Your task to perform on an android device: Open my contact list Image 0: 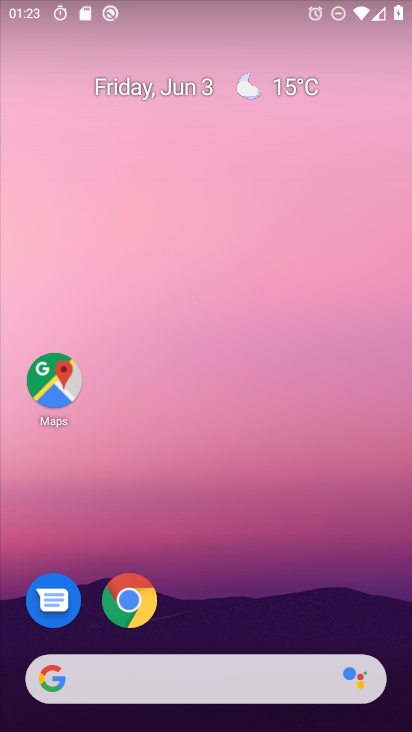
Step 0: drag from (242, 595) to (381, 63)
Your task to perform on an android device: Open my contact list Image 1: 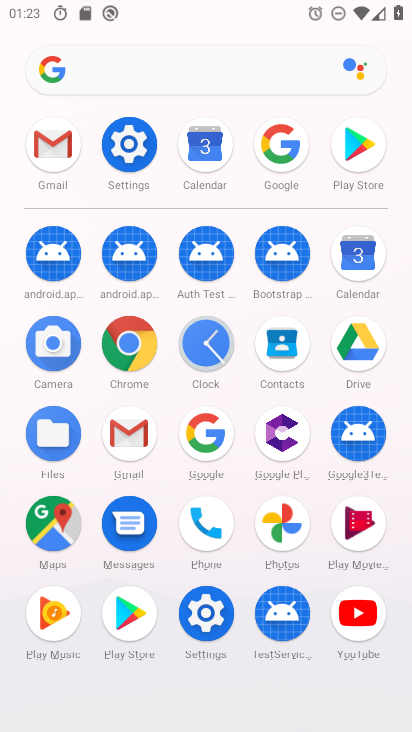
Step 1: click (278, 347)
Your task to perform on an android device: Open my contact list Image 2: 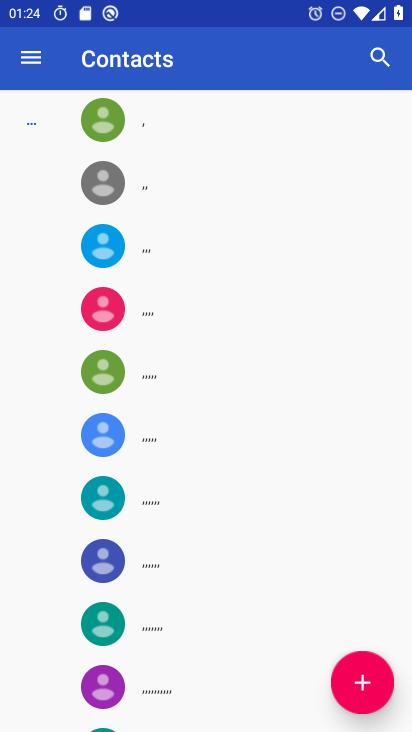
Step 2: task complete